Your task to perform on an android device: Do I have any events today? Image 0: 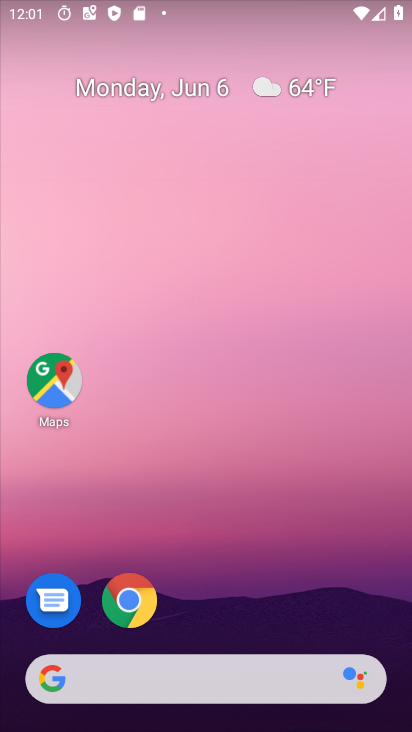
Step 0: click (185, 146)
Your task to perform on an android device: Do I have any events today? Image 1: 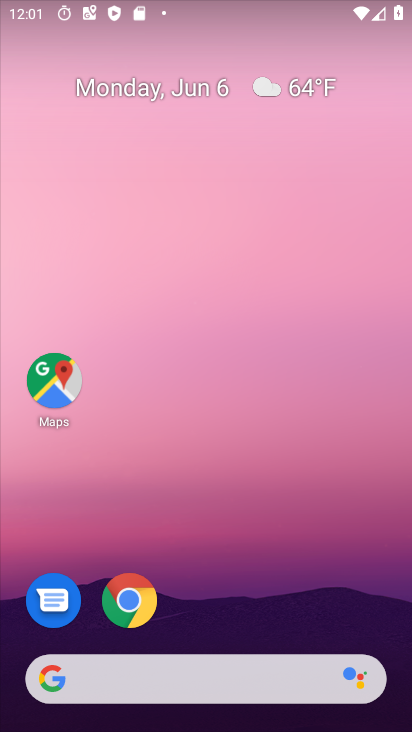
Step 1: drag from (219, 634) to (169, 188)
Your task to perform on an android device: Do I have any events today? Image 2: 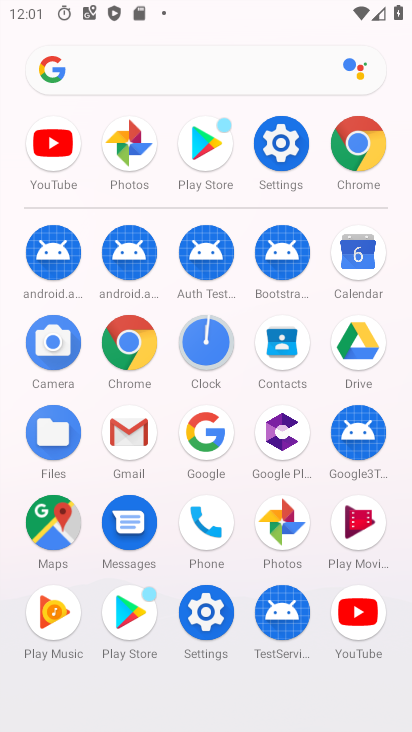
Step 2: click (366, 248)
Your task to perform on an android device: Do I have any events today? Image 3: 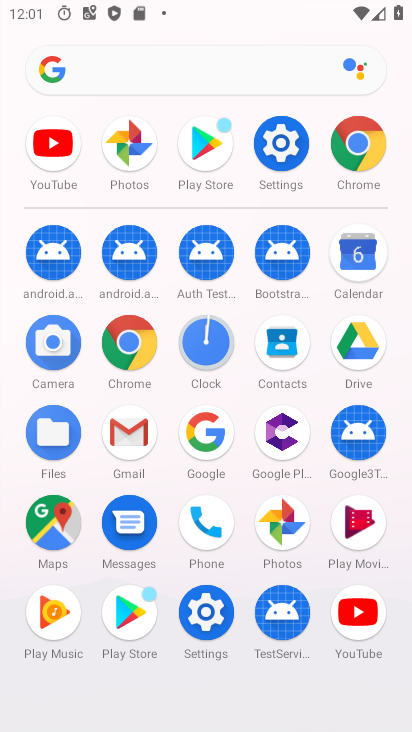
Step 3: click (364, 253)
Your task to perform on an android device: Do I have any events today? Image 4: 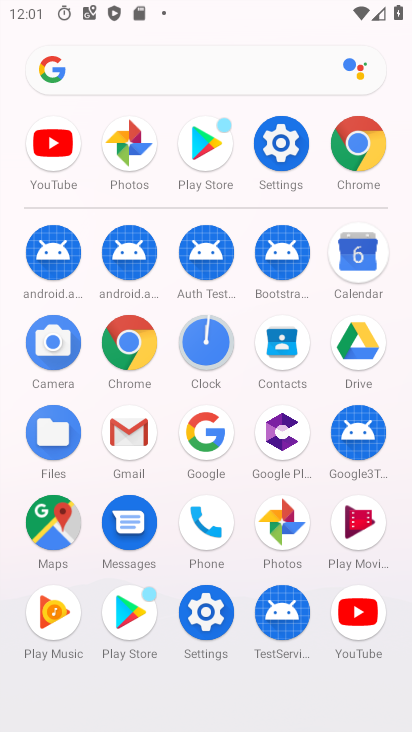
Step 4: click (360, 255)
Your task to perform on an android device: Do I have any events today? Image 5: 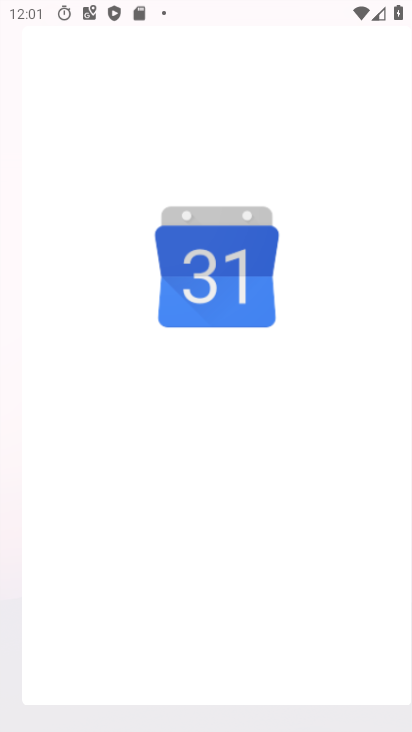
Step 5: click (353, 254)
Your task to perform on an android device: Do I have any events today? Image 6: 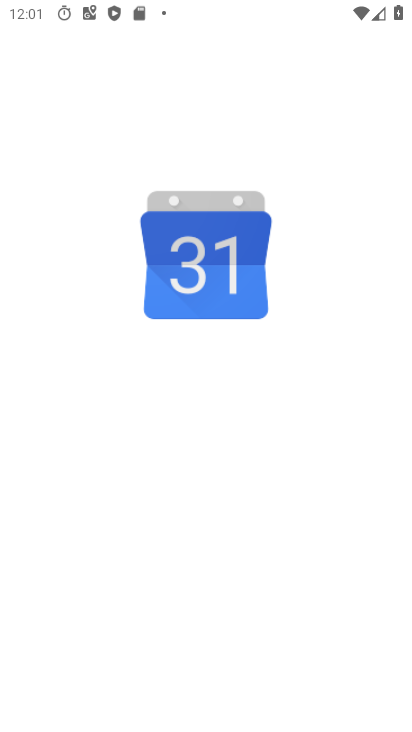
Step 6: click (352, 252)
Your task to perform on an android device: Do I have any events today? Image 7: 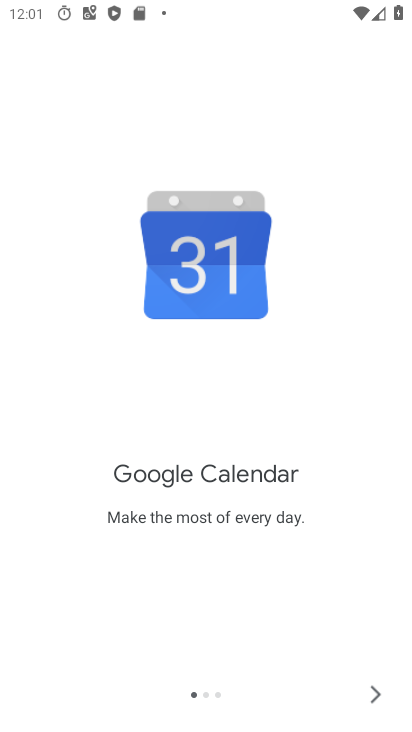
Step 7: click (367, 688)
Your task to perform on an android device: Do I have any events today? Image 8: 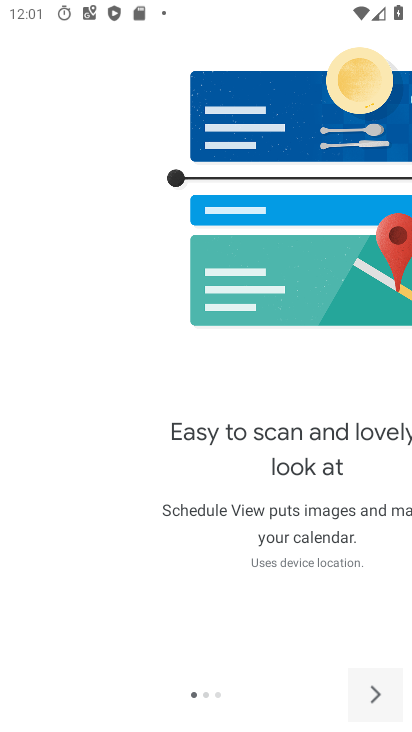
Step 8: click (368, 688)
Your task to perform on an android device: Do I have any events today? Image 9: 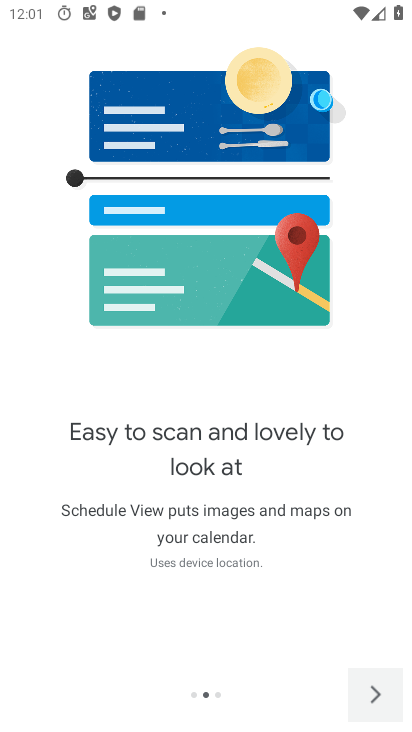
Step 9: click (372, 680)
Your task to perform on an android device: Do I have any events today? Image 10: 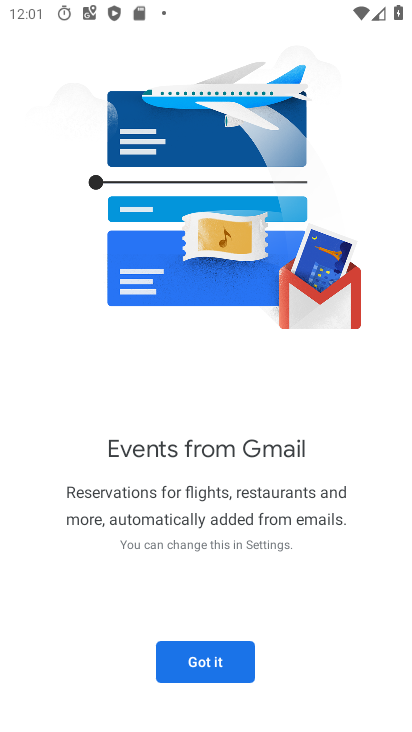
Step 10: click (374, 702)
Your task to perform on an android device: Do I have any events today? Image 11: 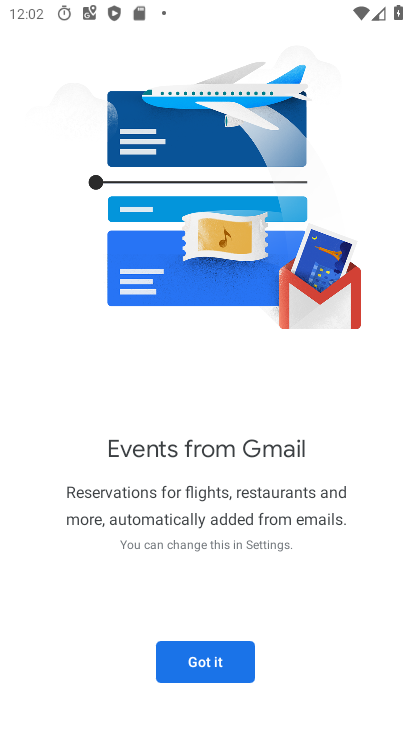
Step 11: click (374, 703)
Your task to perform on an android device: Do I have any events today? Image 12: 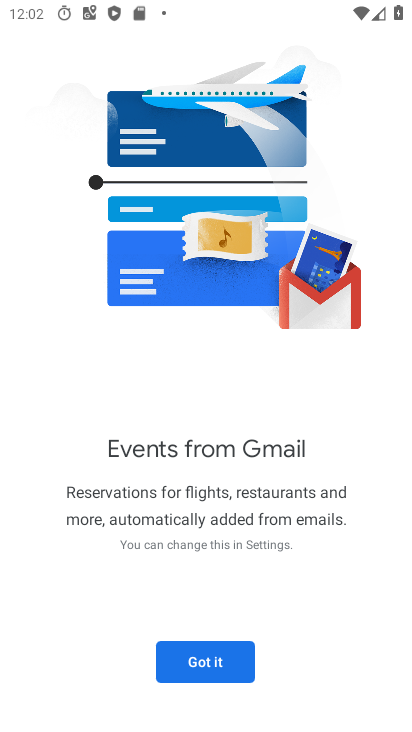
Step 12: click (374, 697)
Your task to perform on an android device: Do I have any events today? Image 13: 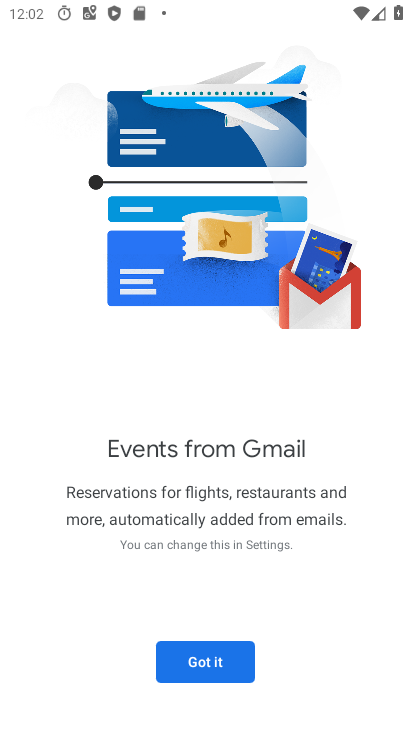
Step 13: click (233, 659)
Your task to perform on an android device: Do I have any events today? Image 14: 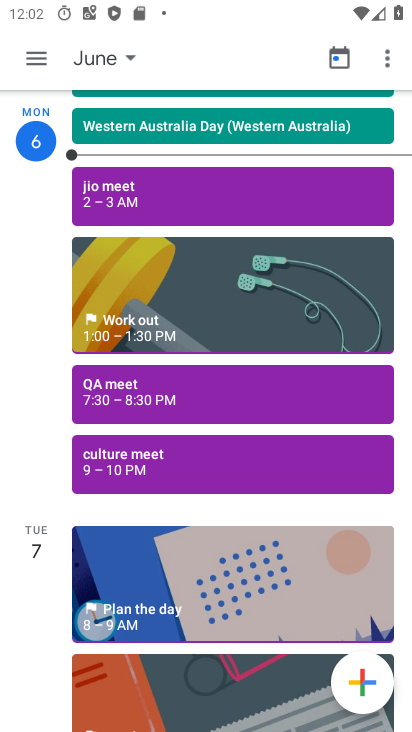
Step 14: click (133, 129)
Your task to perform on an android device: Do I have any events today? Image 15: 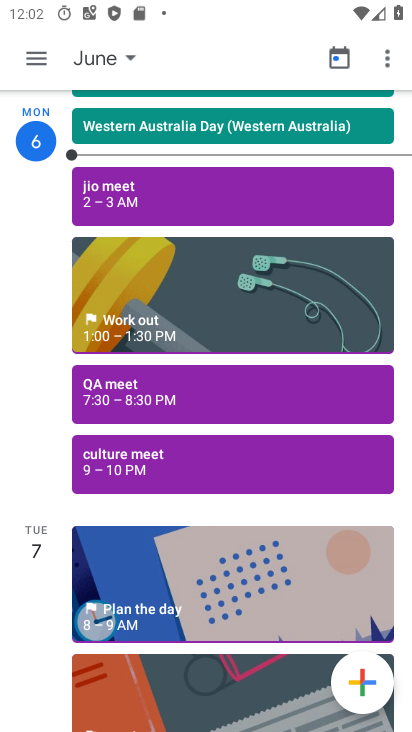
Step 15: click (133, 129)
Your task to perform on an android device: Do I have any events today? Image 16: 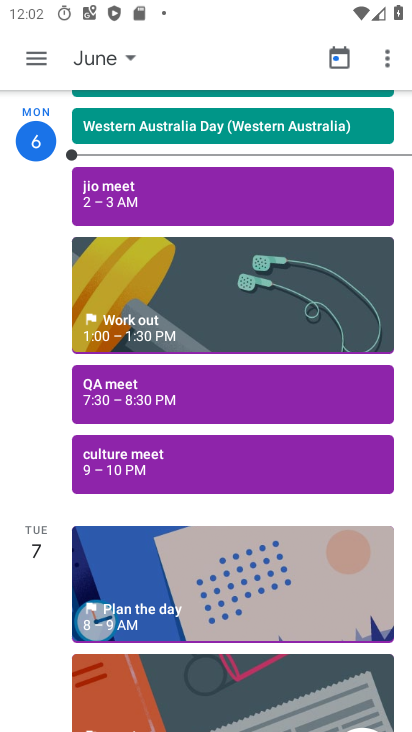
Step 16: click (132, 128)
Your task to perform on an android device: Do I have any events today? Image 17: 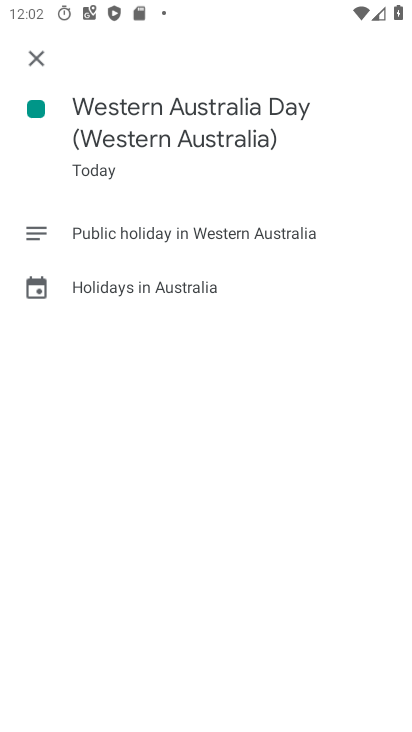
Step 17: task complete